Your task to perform on an android device: turn on data saver in the chrome app Image 0: 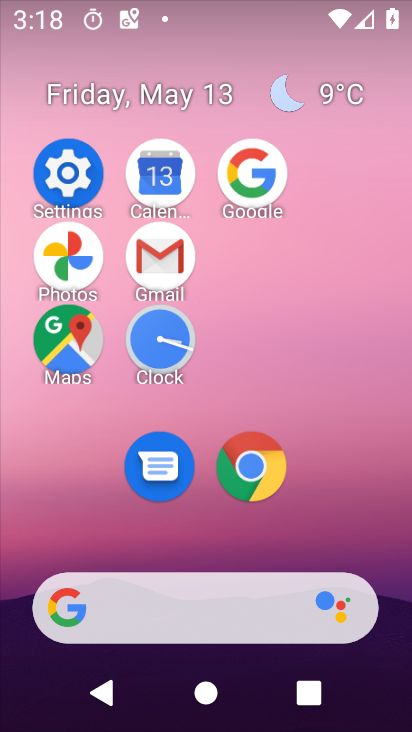
Step 0: click (269, 475)
Your task to perform on an android device: turn on data saver in the chrome app Image 1: 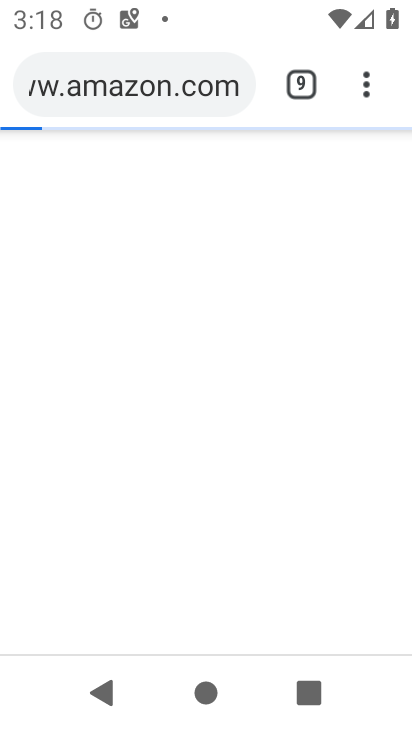
Step 1: click (360, 96)
Your task to perform on an android device: turn on data saver in the chrome app Image 2: 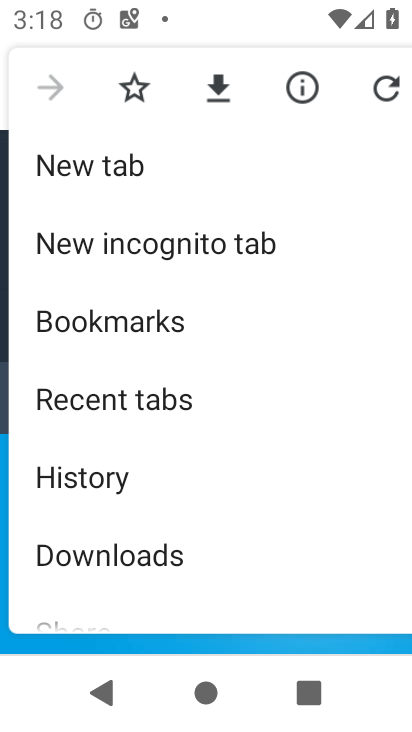
Step 2: drag from (216, 515) to (252, 108)
Your task to perform on an android device: turn on data saver in the chrome app Image 3: 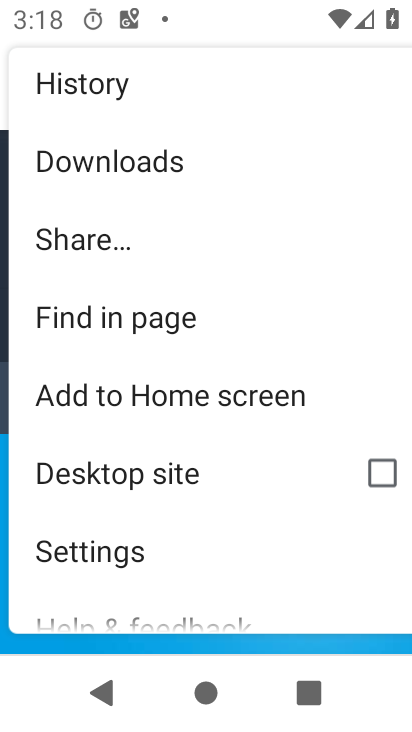
Step 3: click (150, 546)
Your task to perform on an android device: turn on data saver in the chrome app Image 4: 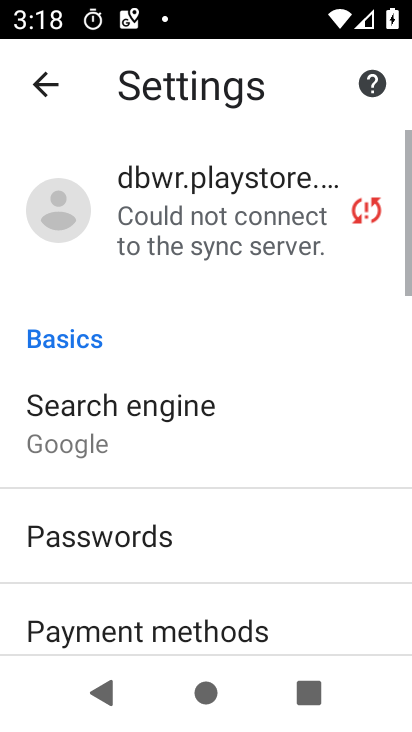
Step 4: drag from (141, 521) to (167, 163)
Your task to perform on an android device: turn on data saver in the chrome app Image 5: 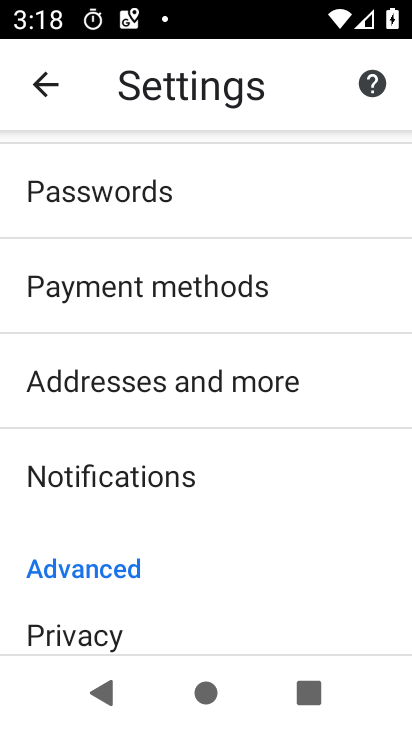
Step 5: drag from (233, 597) to (280, 181)
Your task to perform on an android device: turn on data saver in the chrome app Image 6: 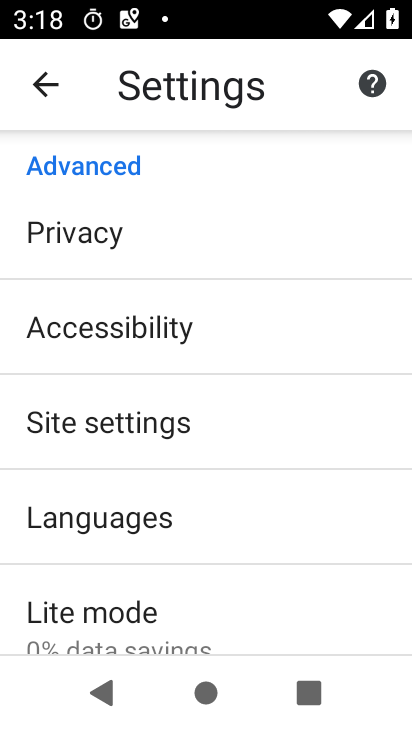
Step 6: click (159, 630)
Your task to perform on an android device: turn on data saver in the chrome app Image 7: 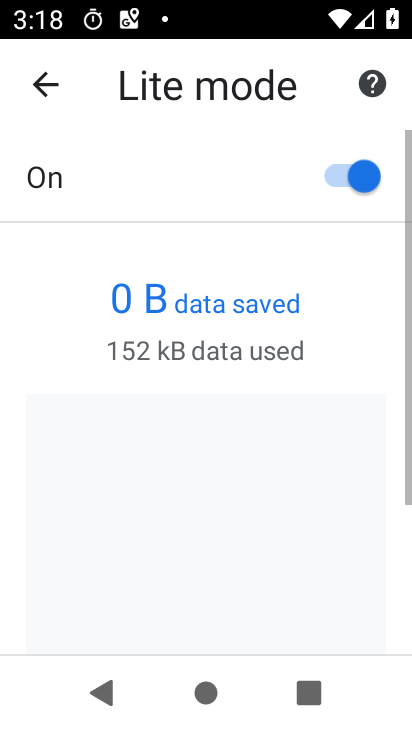
Step 7: task complete